Your task to perform on an android device: Go to battery settings Image 0: 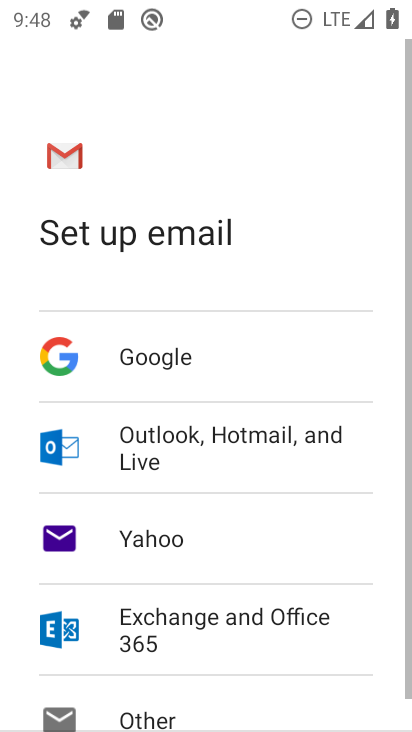
Step 0: press home button
Your task to perform on an android device: Go to battery settings Image 1: 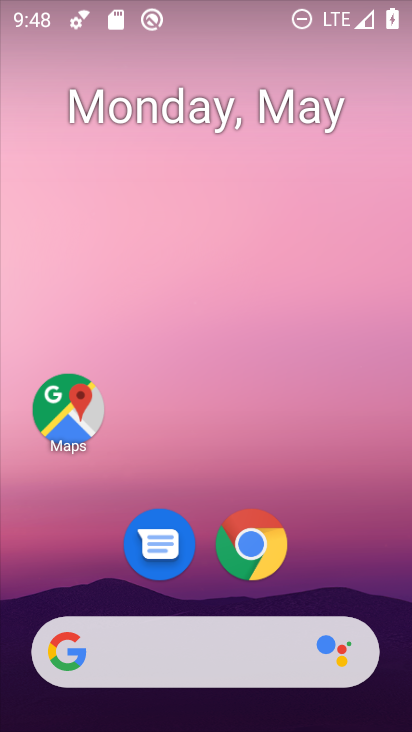
Step 1: drag from (374, 554) to (295, 67)
Your task to perform on an android device: Go to battery settings Image 2: 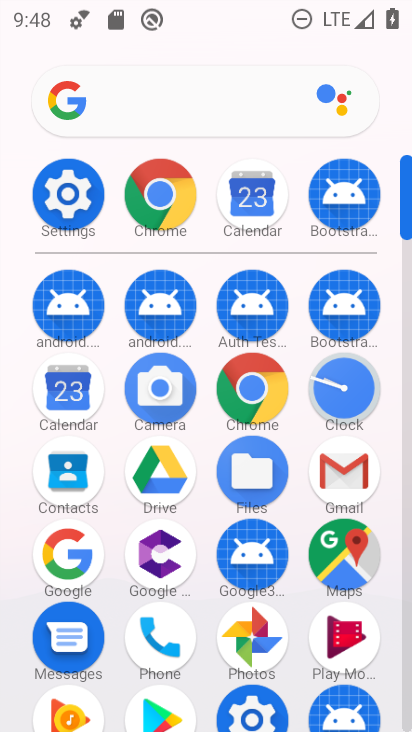
Step 2: click (76, 186)
Your task to perform on an android device: Go to battery settings Image 3: 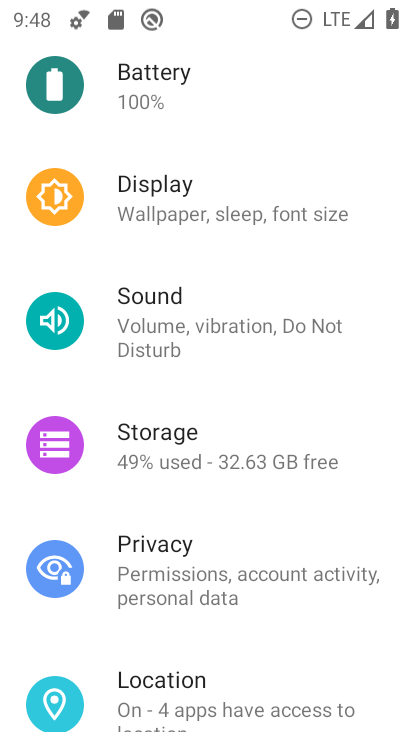
Step 3: click (190, 78)
Your task to perform on an android device: Go to battery settings Image 4: 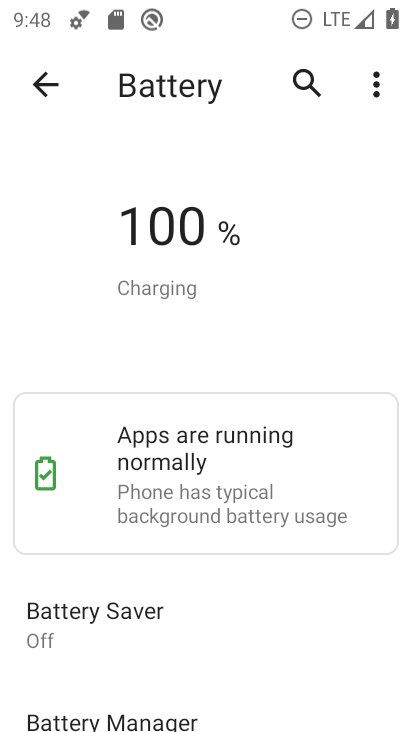
Step 4: task complete